Your task to perform on an android device: Clear all items from cart on walmart.com. Image 0: 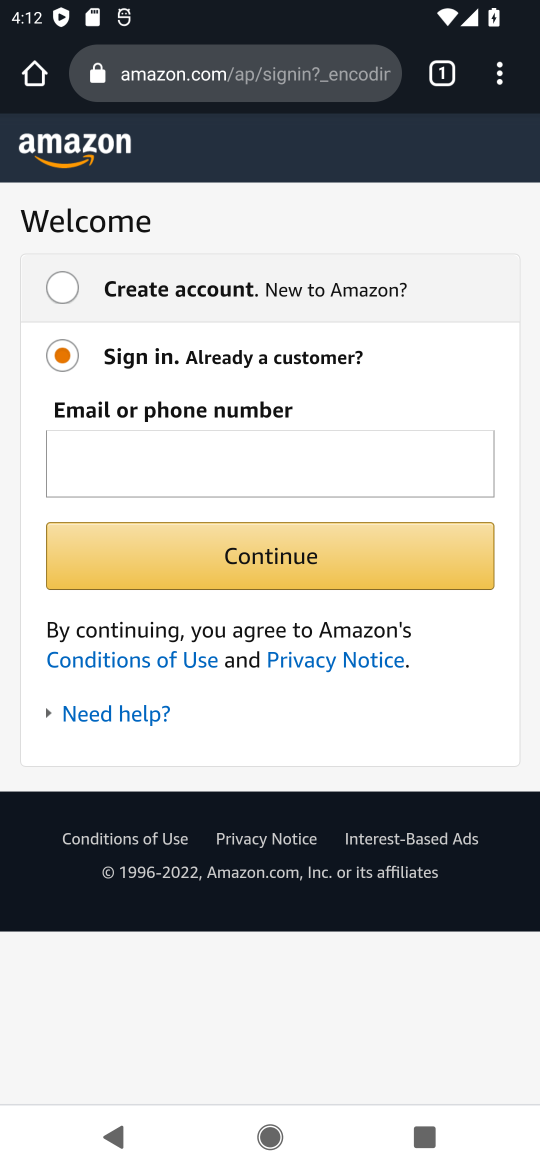
Step 0: press home button
Your task to perform on an android device: Clear all items from cart on walmart.com. Image 1: 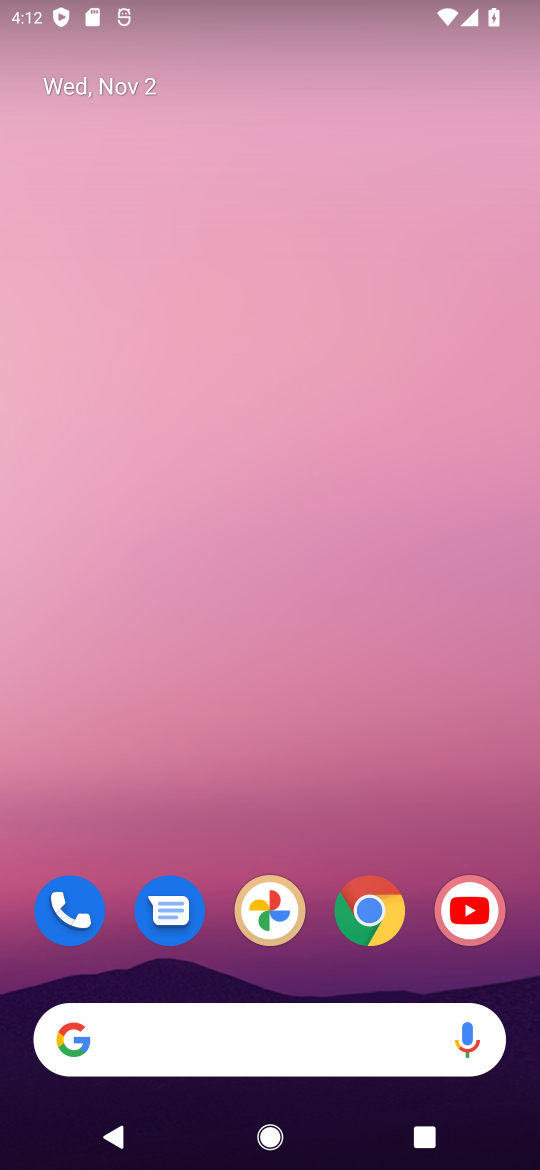
Step 1: click (376, 911)
Your task to perform on an android device: Clear all items from cart on walmart.com. Image 2: 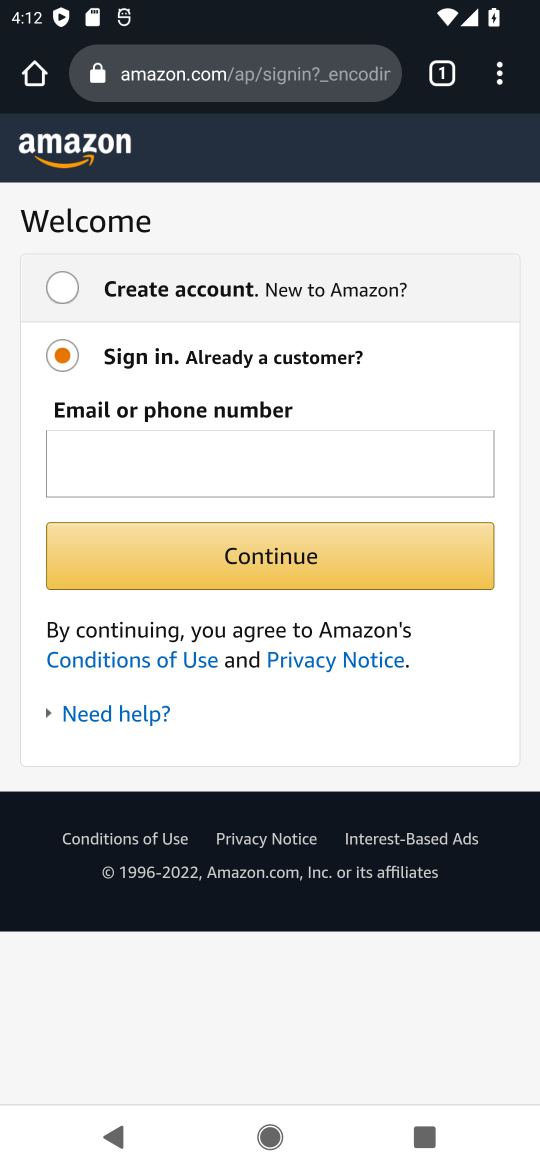
Step 2: click (198, 87)
Your task to perform on an android device: Clear all items from cart on walmart.com. Image 3: 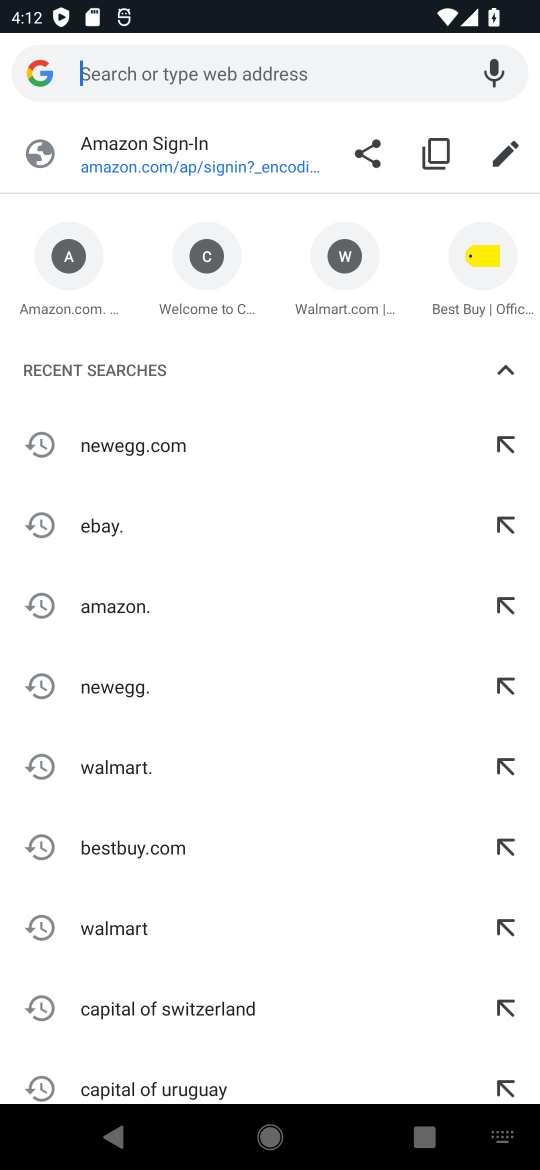
Step 3: type "walmart.com"
Your task to perform on an android device: Clear all items from cart on walmart.com. Image 4: 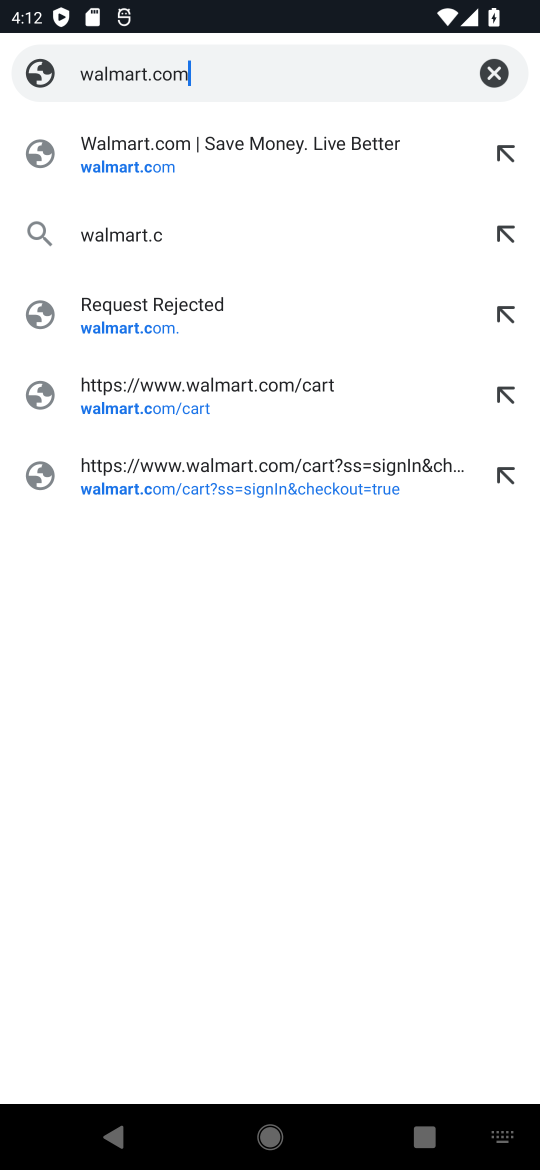
Step 4: type ""
Your task to perform on an android device: Clear all items from cart on walmart.com. Image 5: 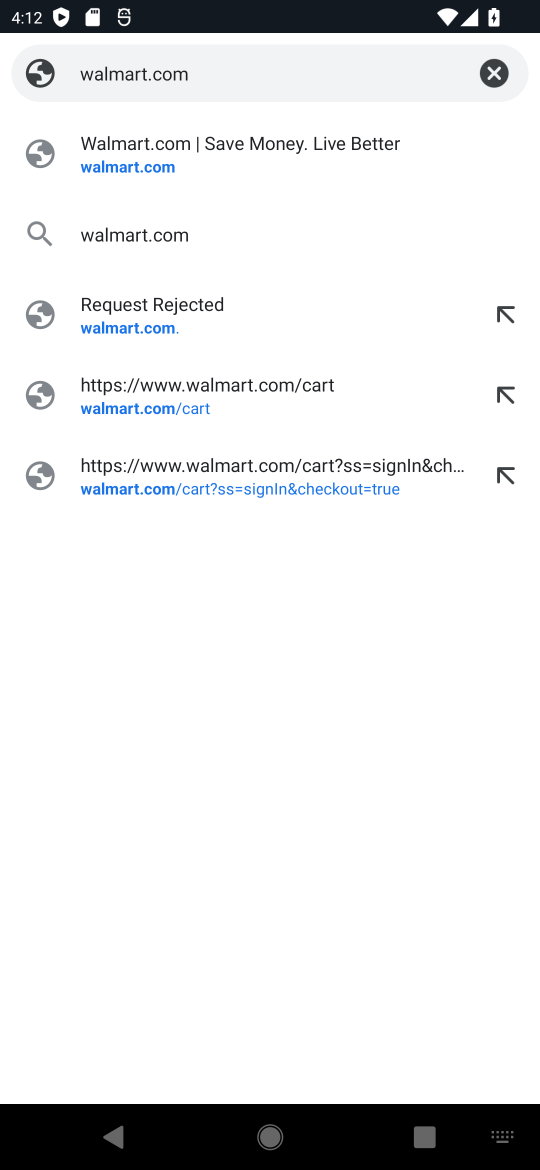
Step 5: click (230, 120)
Your task to perform on an android device: Clear all items from cart on walmart.com. Image 6: 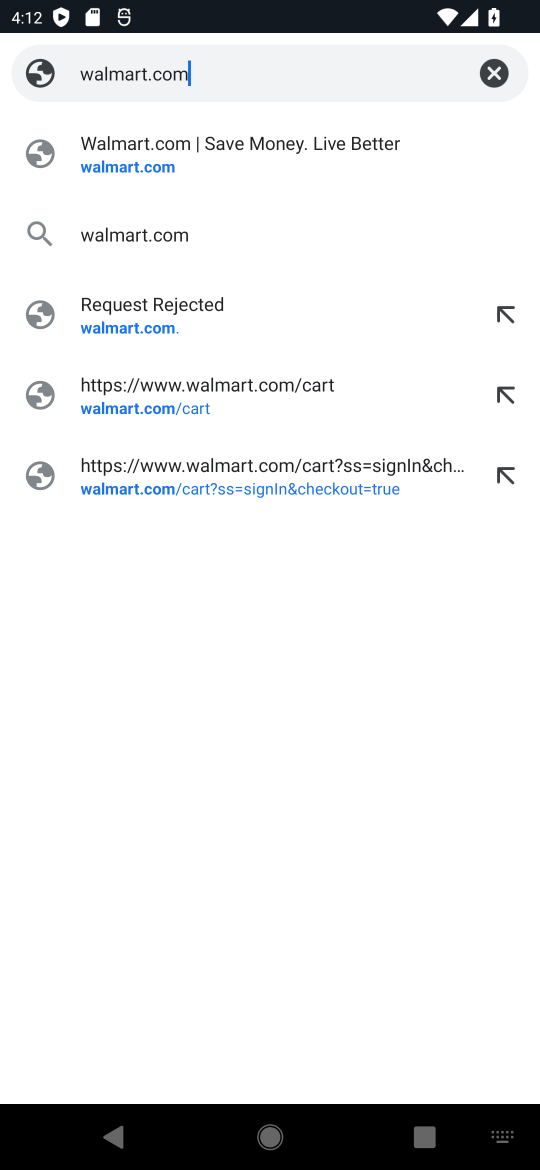
Step 6: click (220, 137)
Your task to perform on an android device: Clear all items from cart on walmart.com. Image 7: 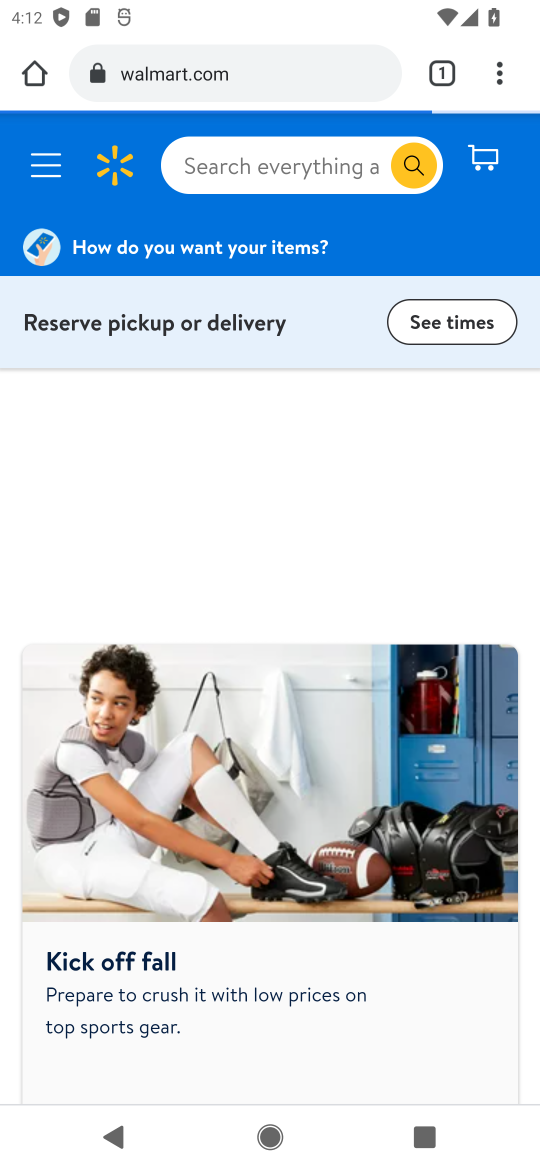
Step 7: drag from (279, 882) to (263, 339)
Your task to perform on an android device: Clear all items from cart on walmart.com. Image 8: 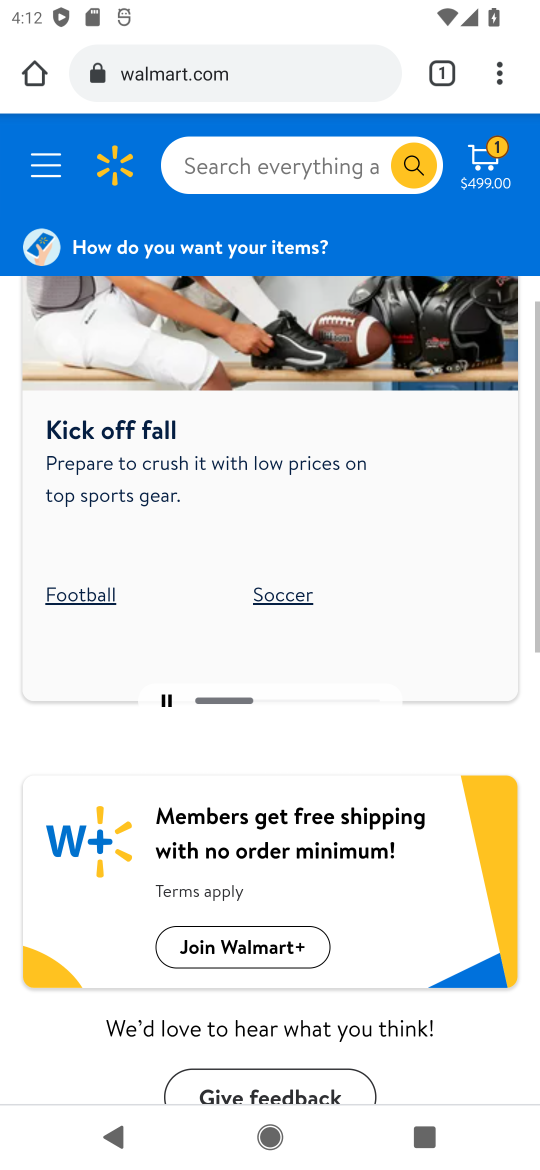
Step 8: drag from (350, 850) to (361, 552)
Your task to perform on an android device: Clear all items from cart on walmart.com. Image 9: 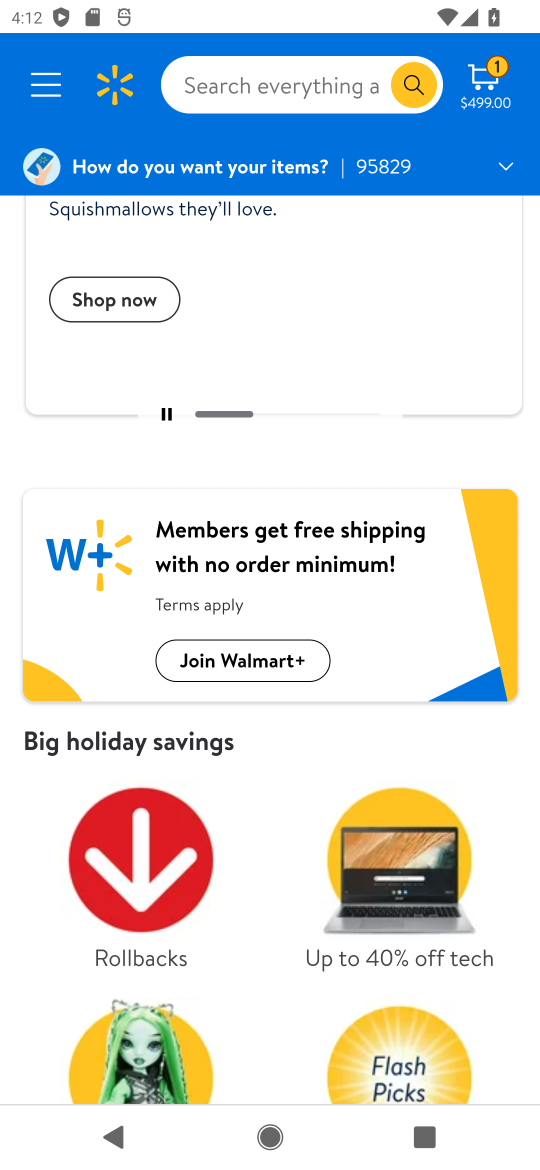
Step 9: click (474, 84)
Your task to perform on an android device: Clear all items from cart on walmart.com. Image 10: 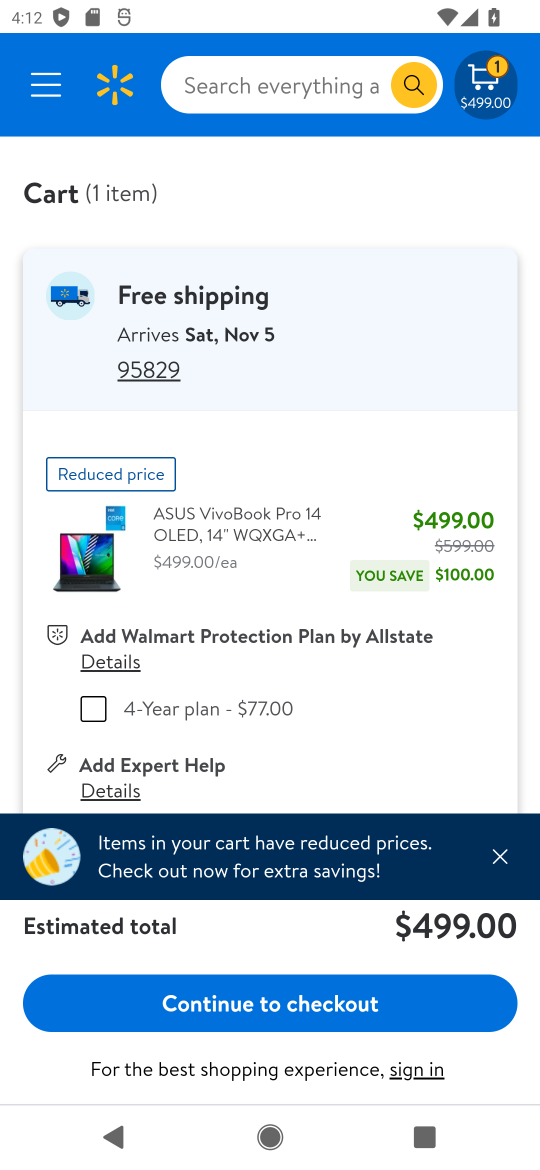
Step 10: click (514, 849)
Your task to perform on an android device: Clear all items from cart on walmart.com. Image 11: 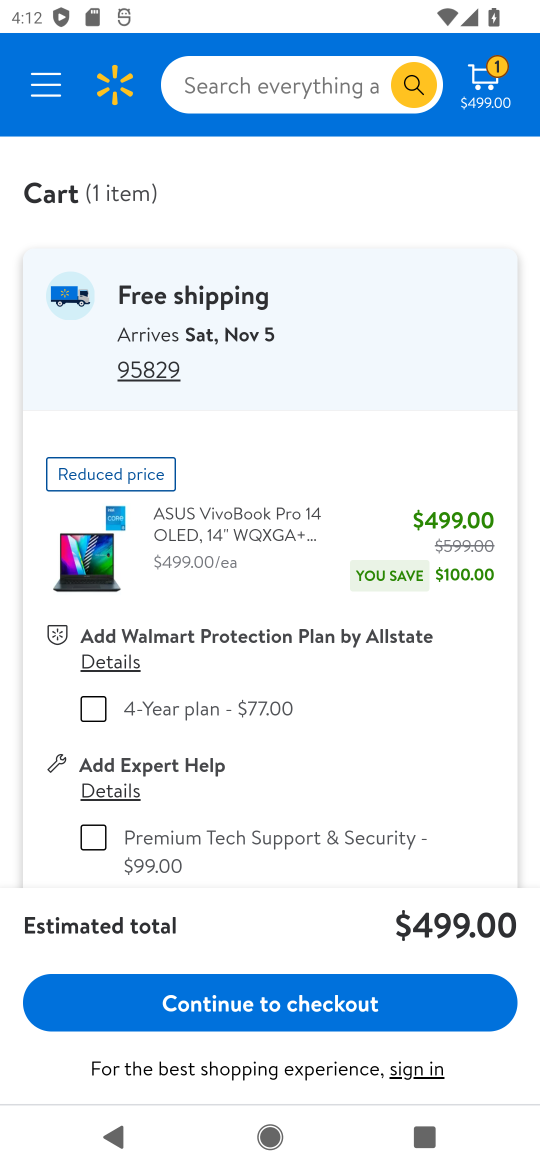
Step 11: drag from (189, 846) to (285, 442)
Your task to perform on an android device: Clear all items from cart on walmart.com. Image 12: 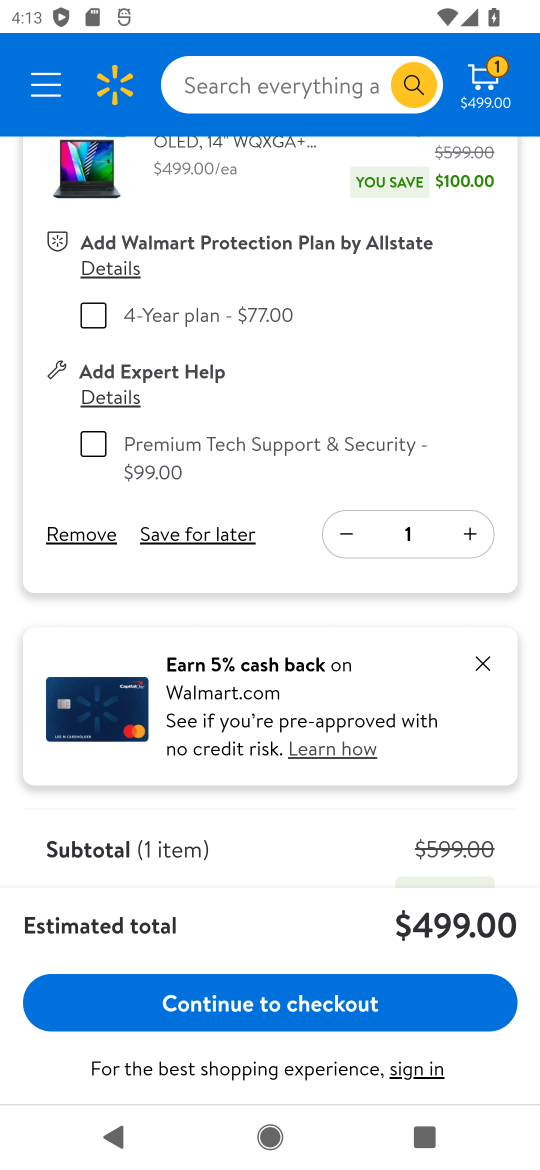
Step 12: click (47, 526)
Your task to perform on an android device: Clear all items from cart on walmart.com. Image 13: 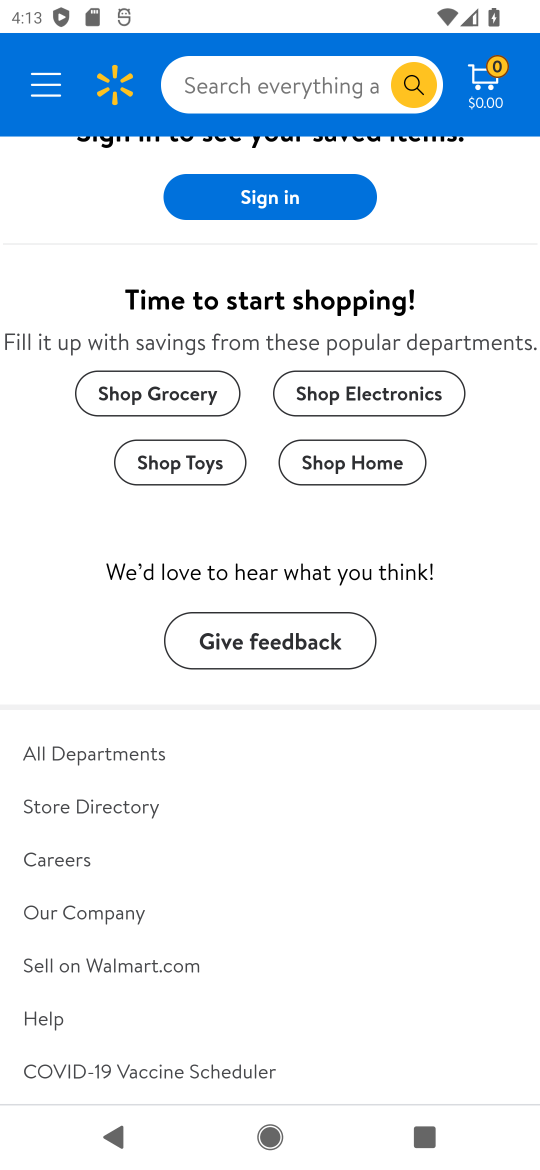
Step 13: task complete